Your task to perform on an android device: change notification settings in the gmail app Image 0: 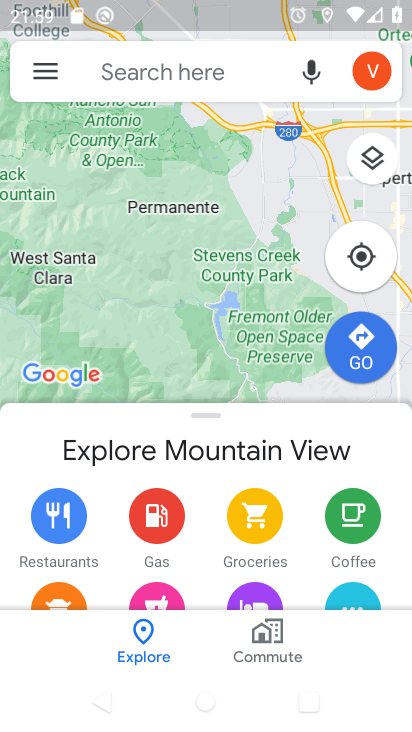
Step 0: press home button
Your task to perform on an android device: change notification settings in the gmail app Image 1: 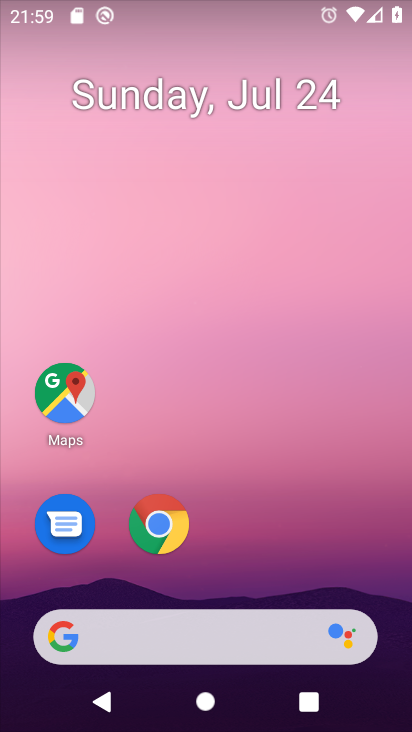
Step 1: drag from (268, 557) to (343, 7)
Your task to perform on an android device: change notification settings in the gmail app Image 2: 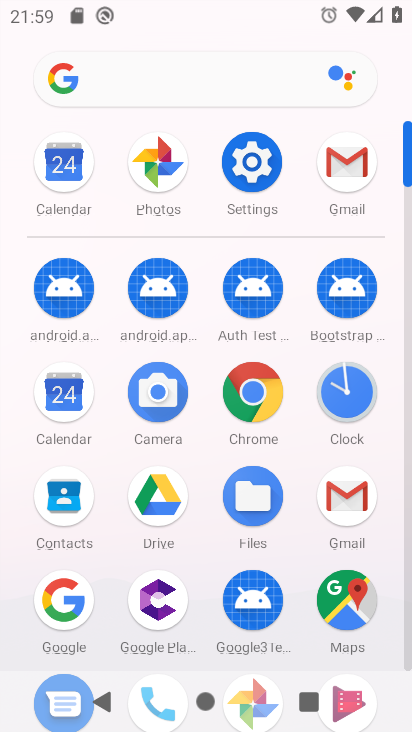
Step 2: click (345, 145)
Your task to perform on an android device: change notification settings in the gmail app Image 3: 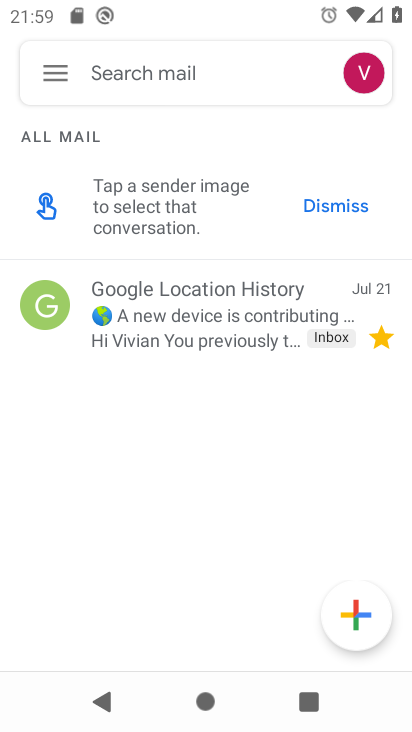
Step 3: click (57, 77)
Your task to perform on an android device: change notification settings in the gmail app Image 4: 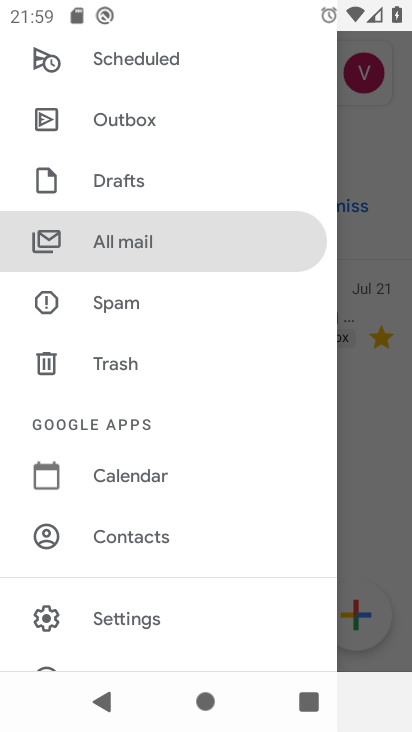
Step 4: click (142, 612)
Your task to perform on an android device: change notification settings in the gmail app Image 5: 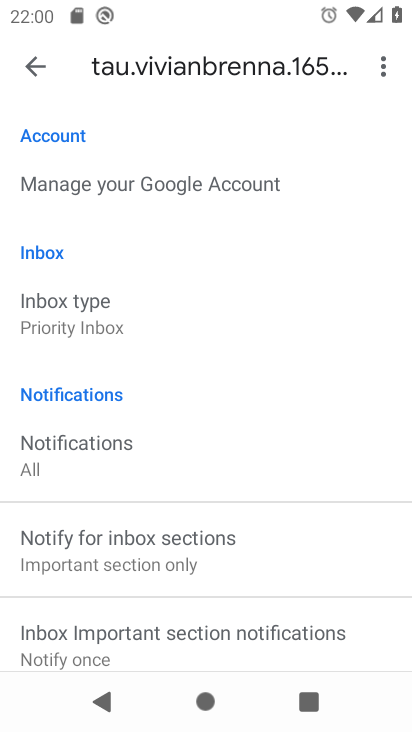
Step 5: drag from (254, 552) to (264, 304)
Your task to perform on an android device: change notification settings in the gmail app Image 6: 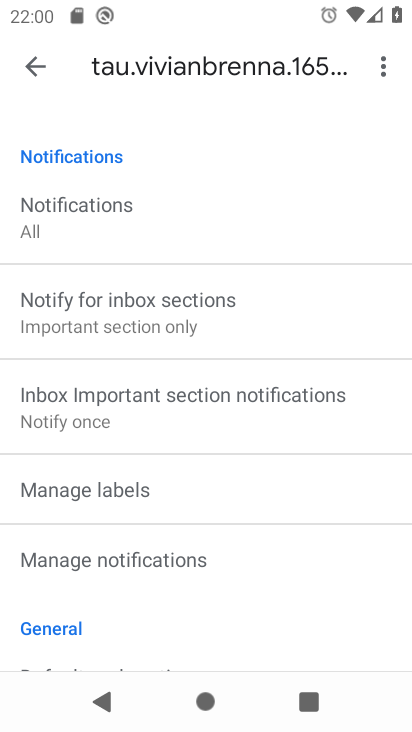
Step 6: click (205, 557)
Your task to perform on an android device: change notification settings in the gmail app Image 7: 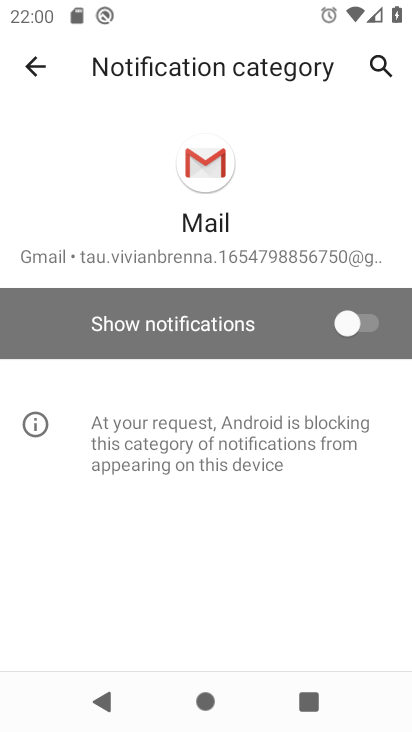
Step 7: click (348, 325)
Your task to perform on an android device: change notification settings in the gmail app Image 8: 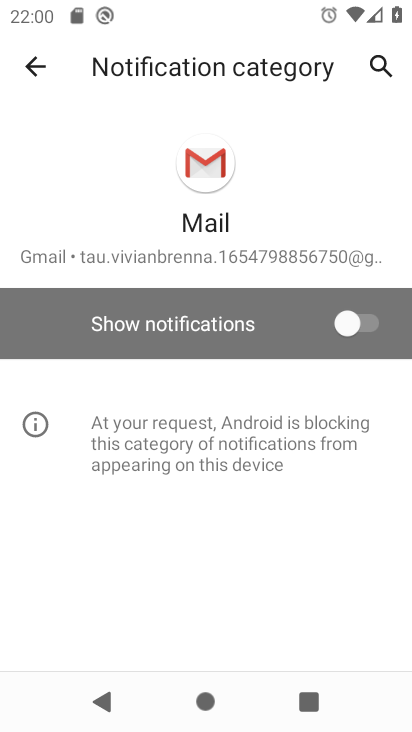
Step 8: click (358, 341)
Your task to perform on an android device: change notification settings in the gmail app Image 9: 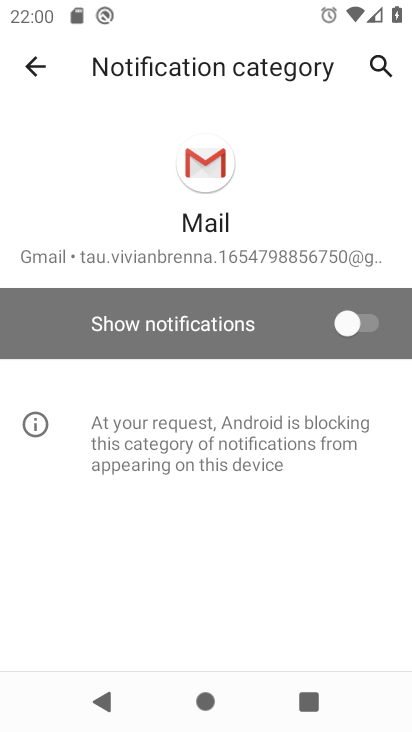
Step 9: click (361, 326)
Your task to perform on an android device: change notification settings in the gmail app Image 10: 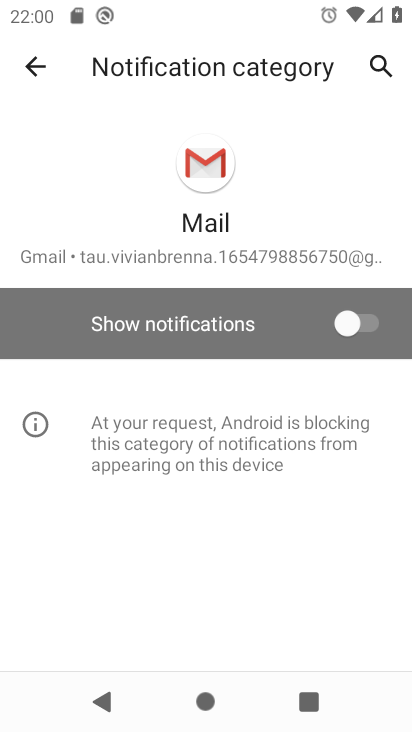
Step 10: click (38, 49)
Your task to perform on an android device: change notification settings in the gmail app Image 11: 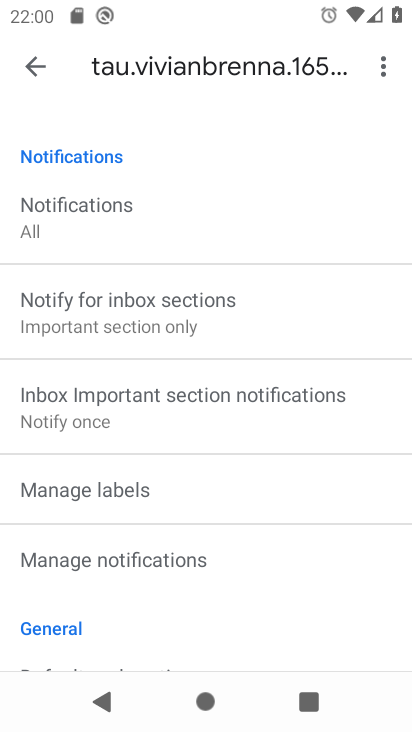
Step 11: click (36, 58)
Your task to perform on an android device: change notification settings in the gmail app Image 12: 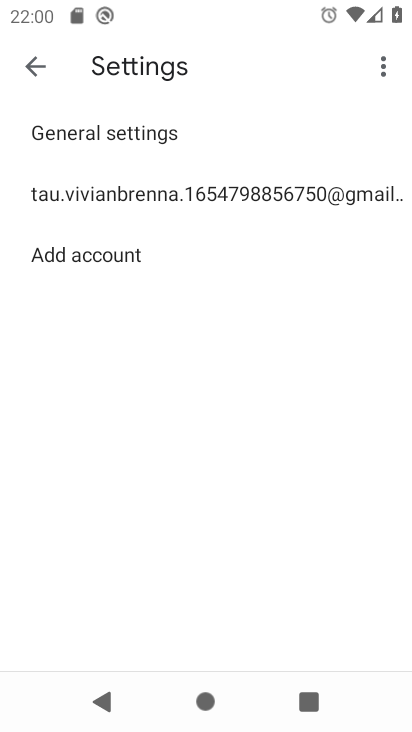
Step 12: click (109, 131)
Your task to perform on an android device: change notification settings in the gmail app Image 13: 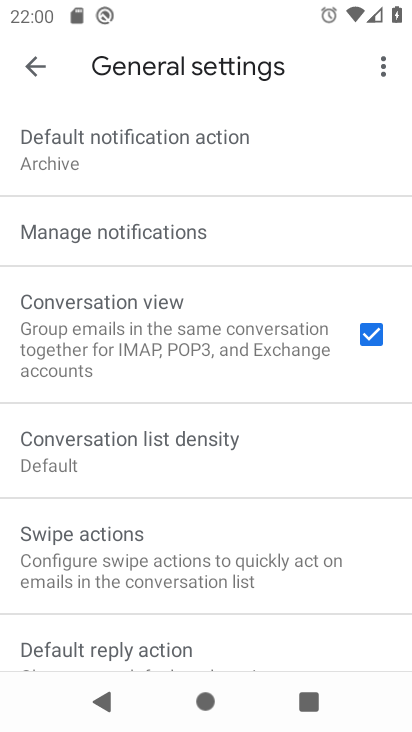
Step 13: click (201, 240)
Your task to perform on an android device: change notification settings in the gmail app Image 14: 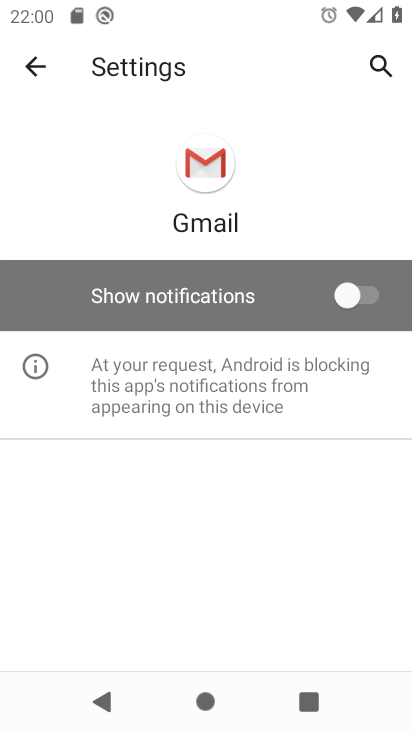
Step 14: click (340, 288)
Your task to perform on an android device: change notification settings in the gmail app Image 15: 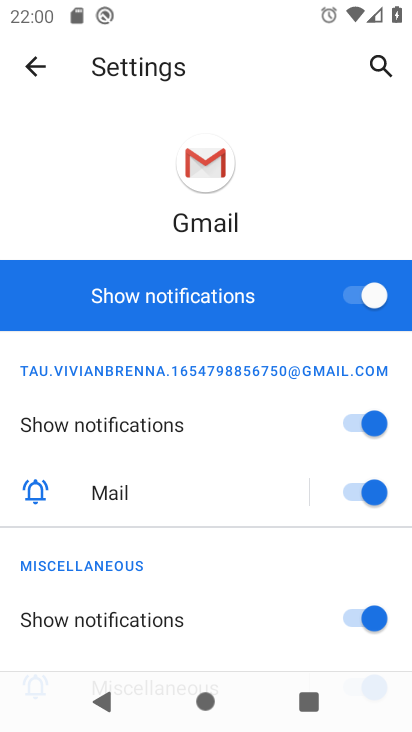
Step 15: task complete